Your task to perform on an android device: Google the capital of Panama Image 0: 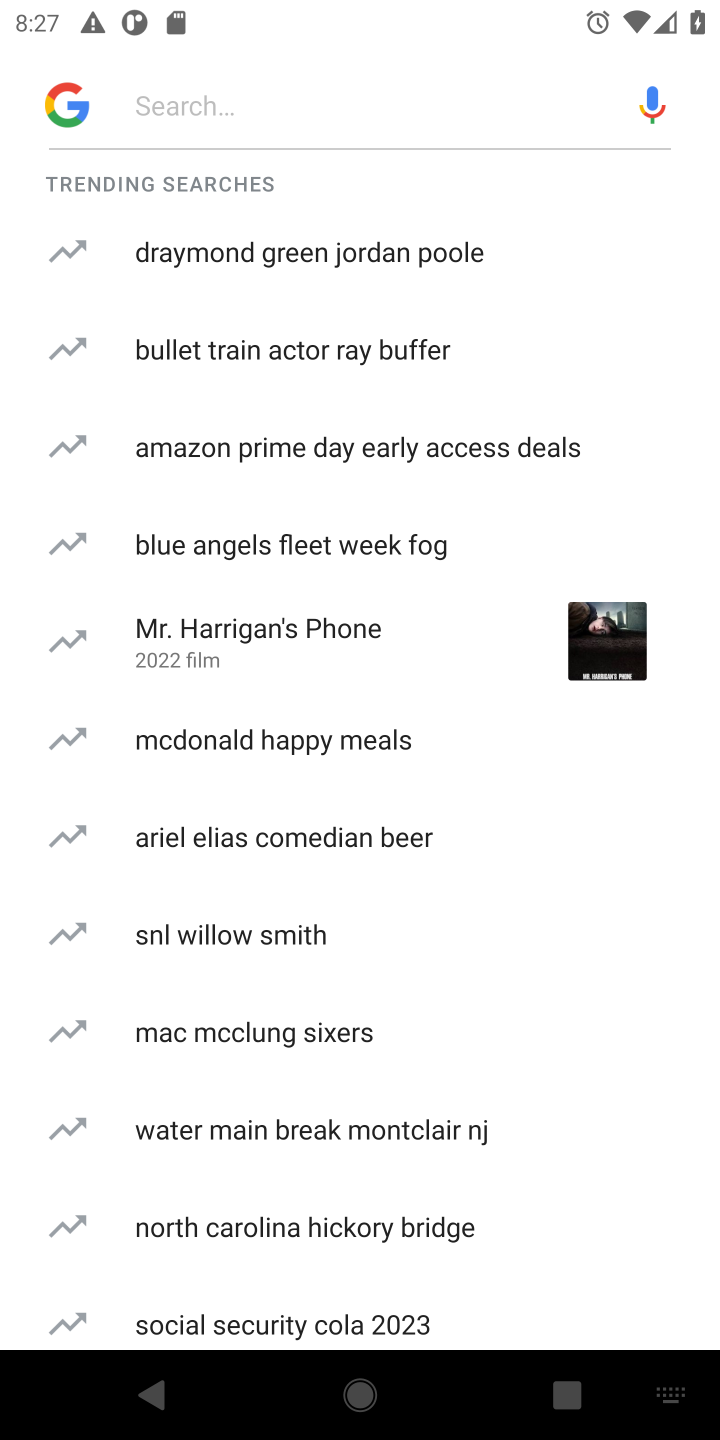
Step 0: drag from (112, 1436) to (246, 1435)
Your task to perform on an android device: Google the capital of Panama Image 1: 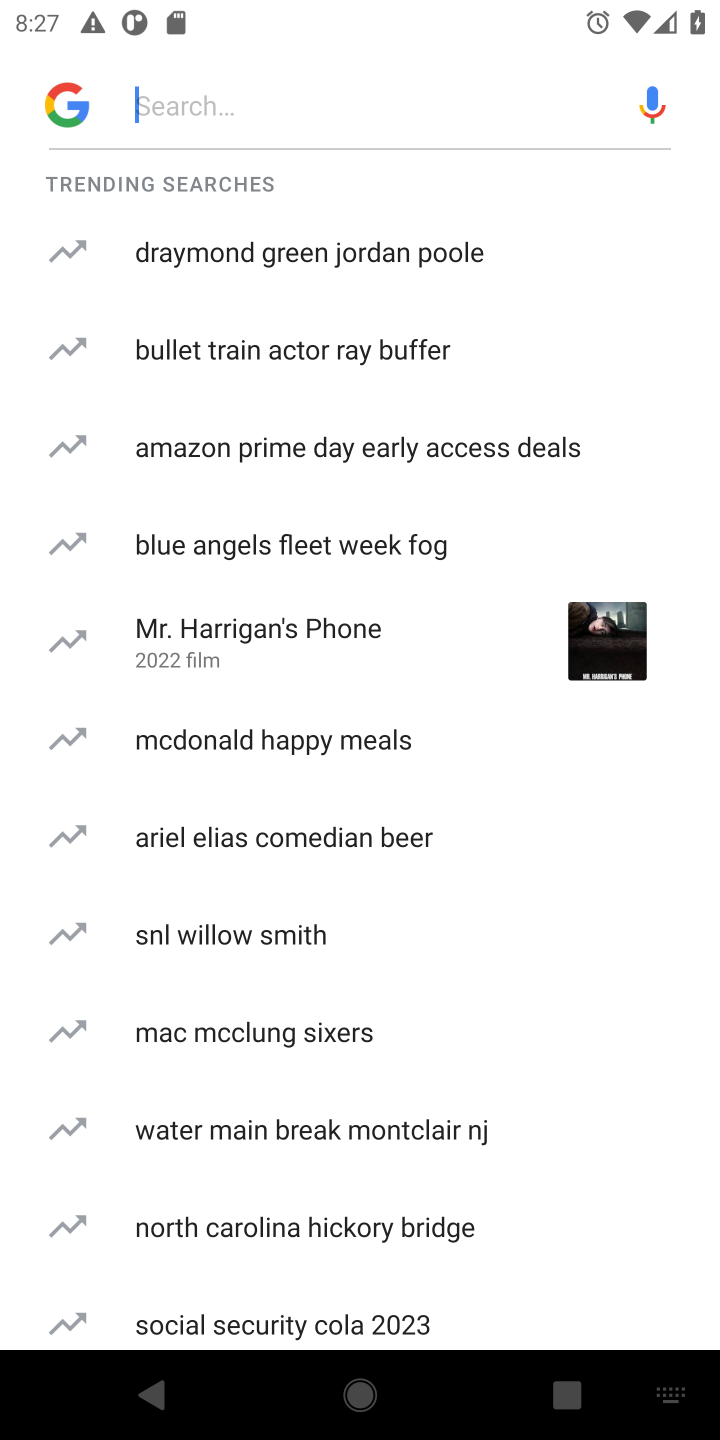
Step 1: click (231, 103)
Your task to perform on an android device: Google the capital of Panama Image 2: 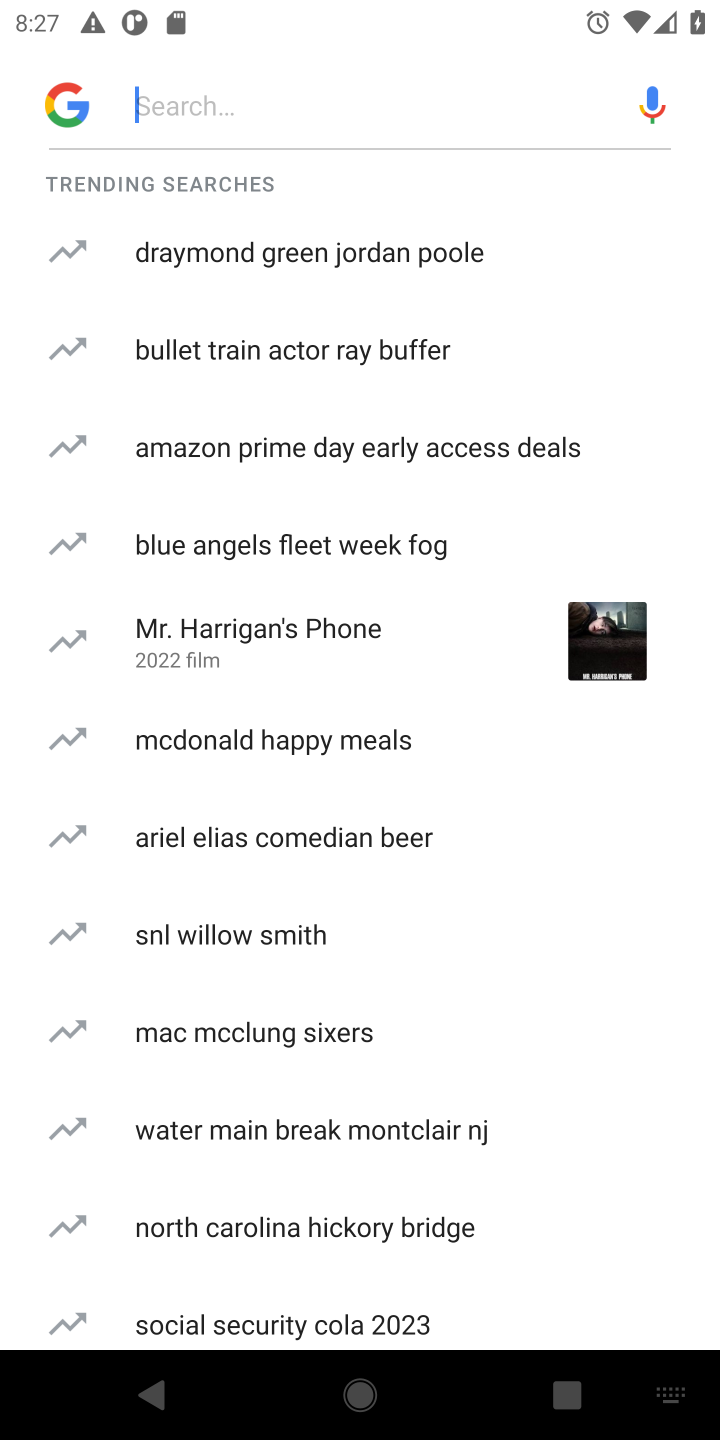
Step 2: type "Google the capital of Panama "
Your task to perform on an android device: Google the capital of Panama Image 3: 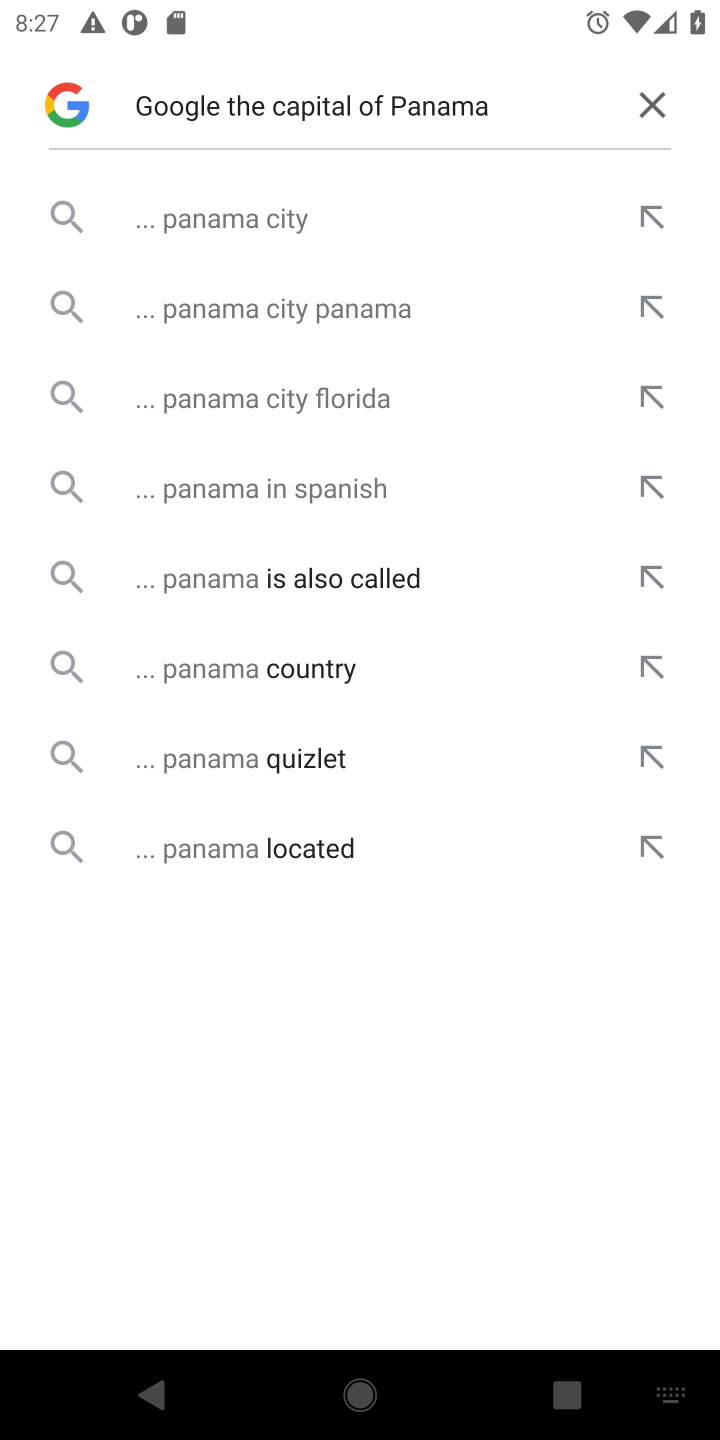
Step 3: click (260, 214)
Your task to perform on an android device: Google the capital of Panama Image 4: 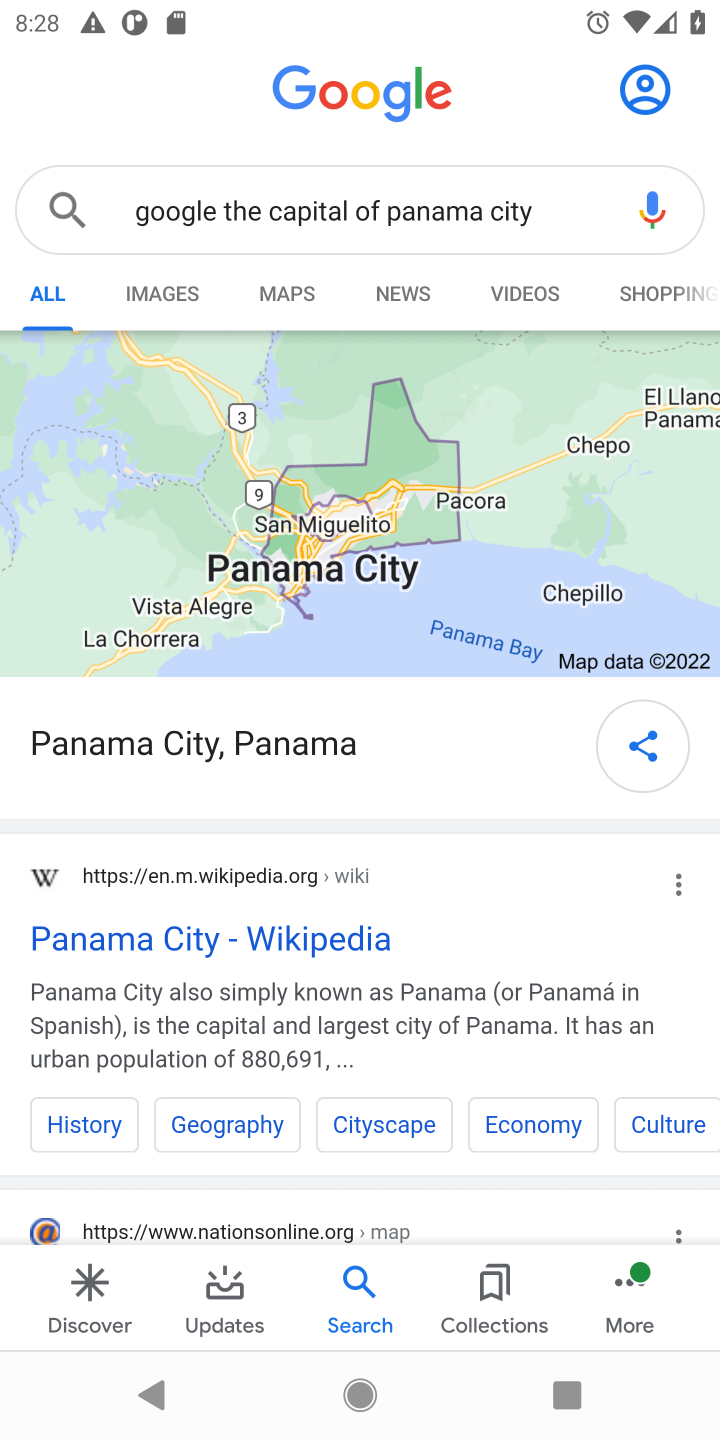
Step 4: drag from (375, 988) to (368, 847)
Your task to perform on an android device: Google the capital of Panama Image 5: 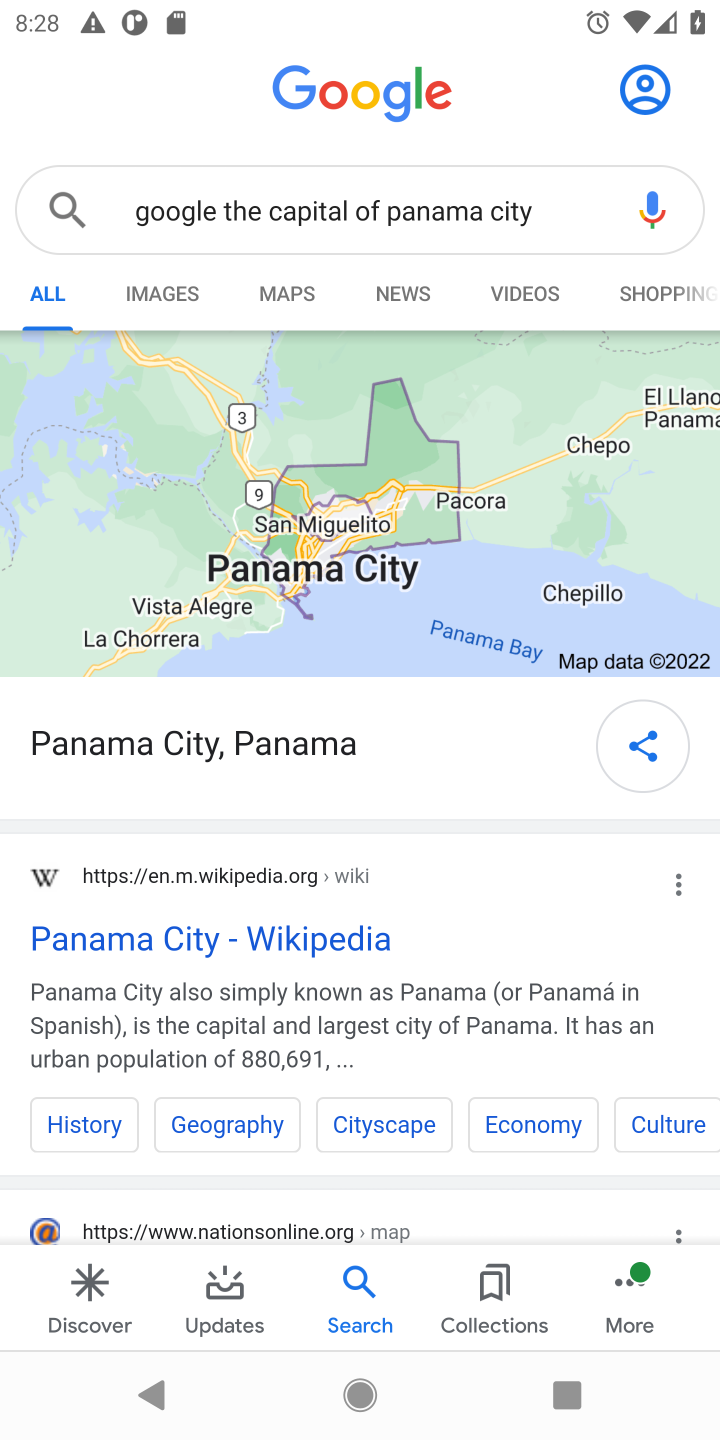
Step 5: drag from (477, 978) to (449, 435)
Your task to perform on an android device: Google the capital of Panama Image 6: 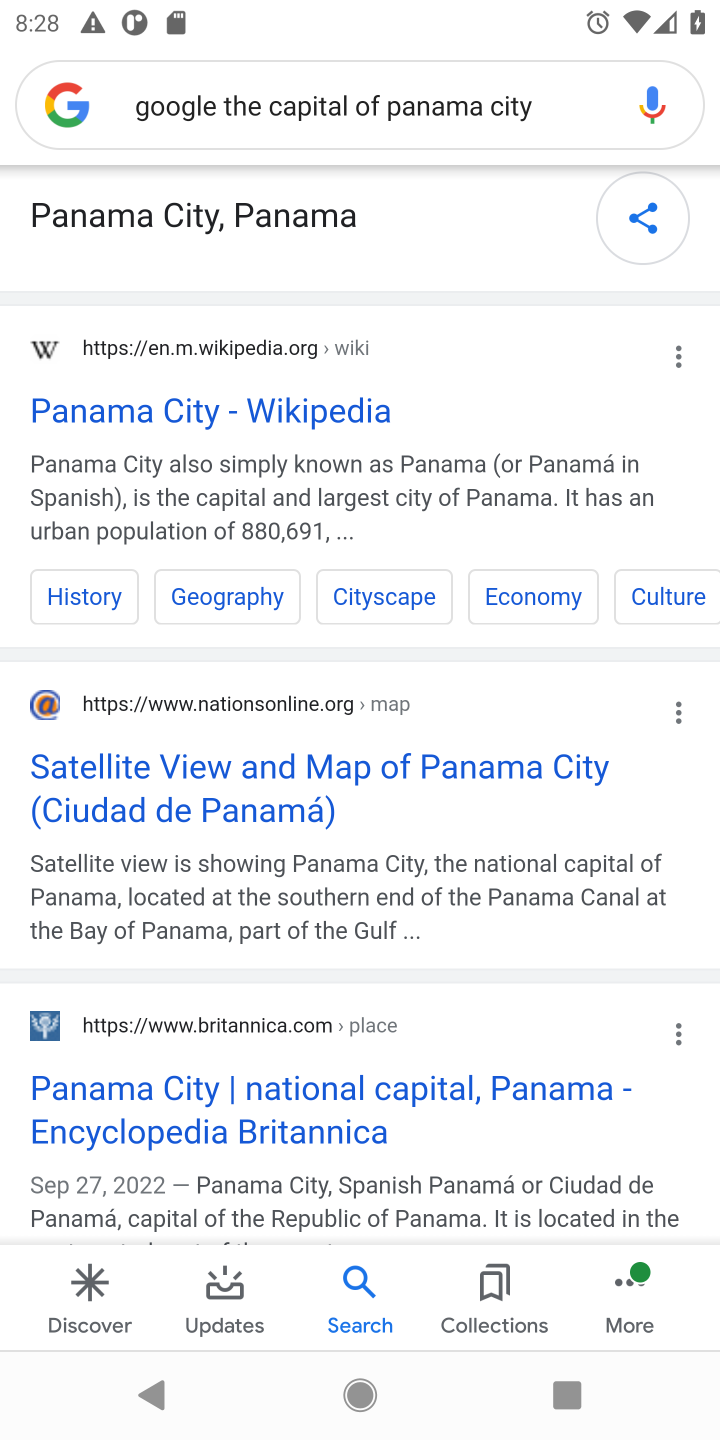
Step 6: drag from (485, 328) to (484, 1136)
Your task to perform on an android device: Google the capital of Panama Image 7: 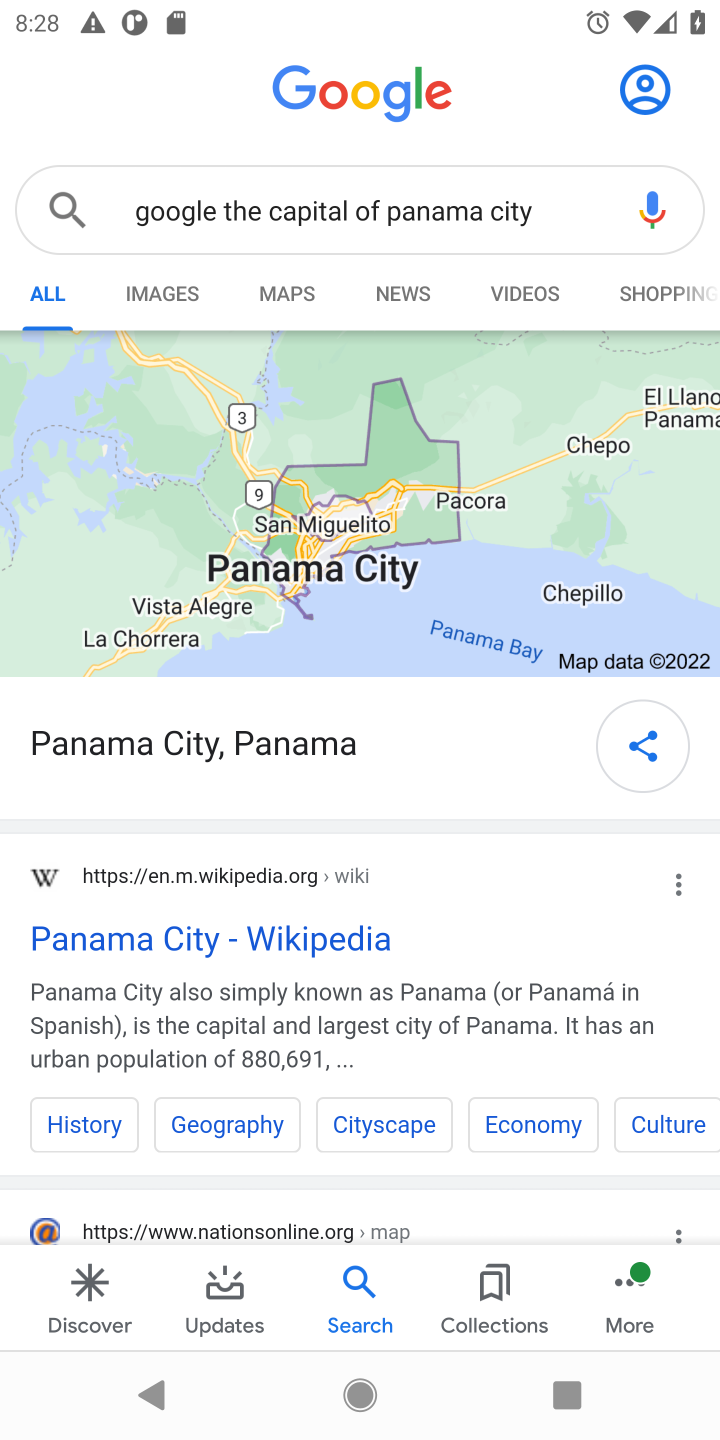
Step 7: drag from (341, 1045) to (463, 453)
Your task to perform on an android device: Google the capital of Panama Image 8: 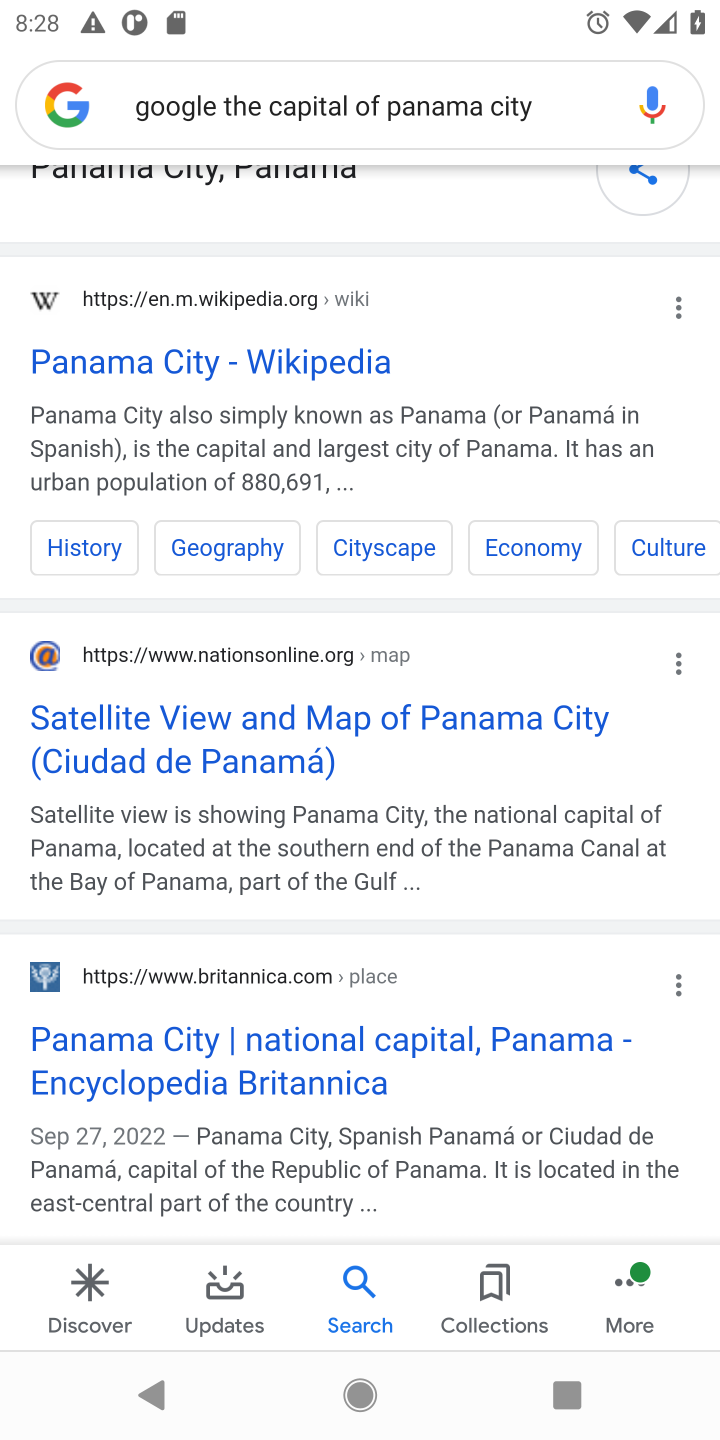
Step 8: drag from (302, 1157) to (322, 692)
Your task to perform on an android device: Google the capital of Panama Image 9: 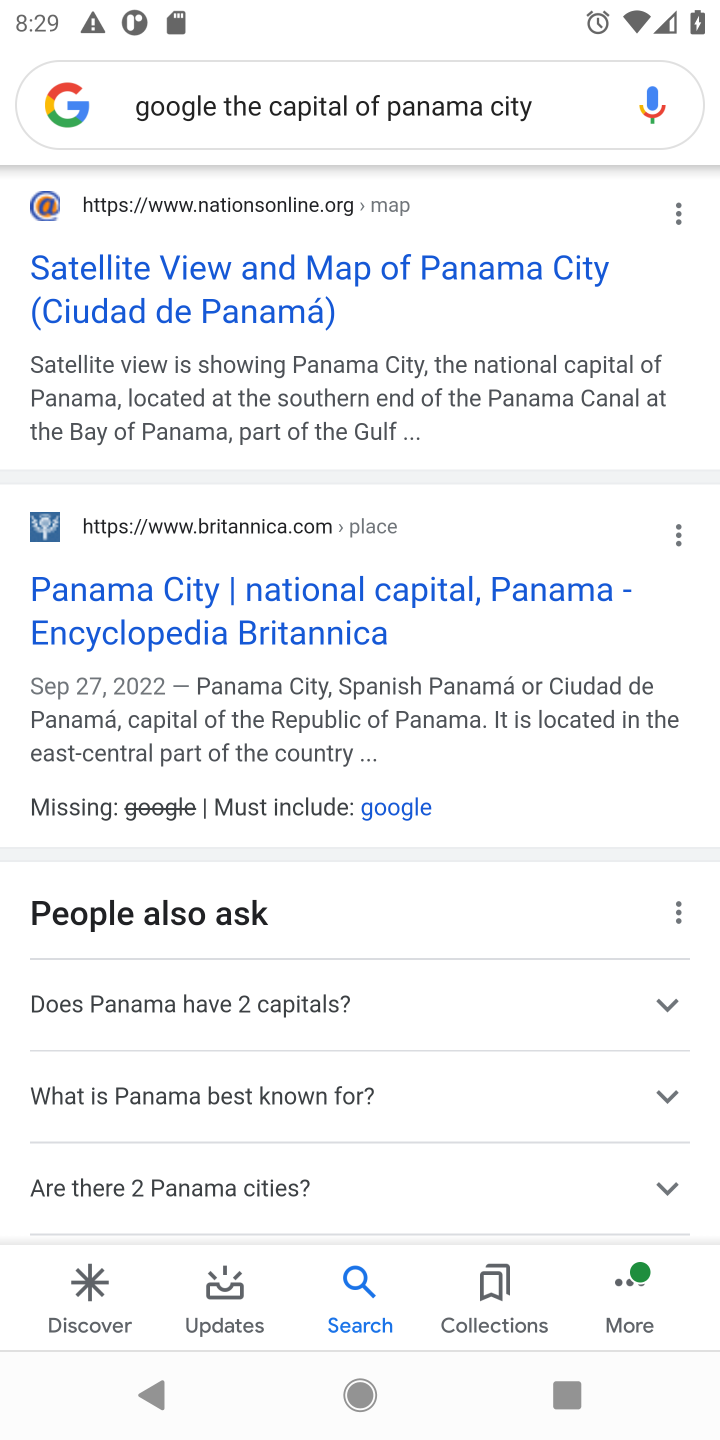
Step 9: drag from (384, 943) to (424, 446)
Your task to perform on an android device: Google the capital of Panama Image 10: 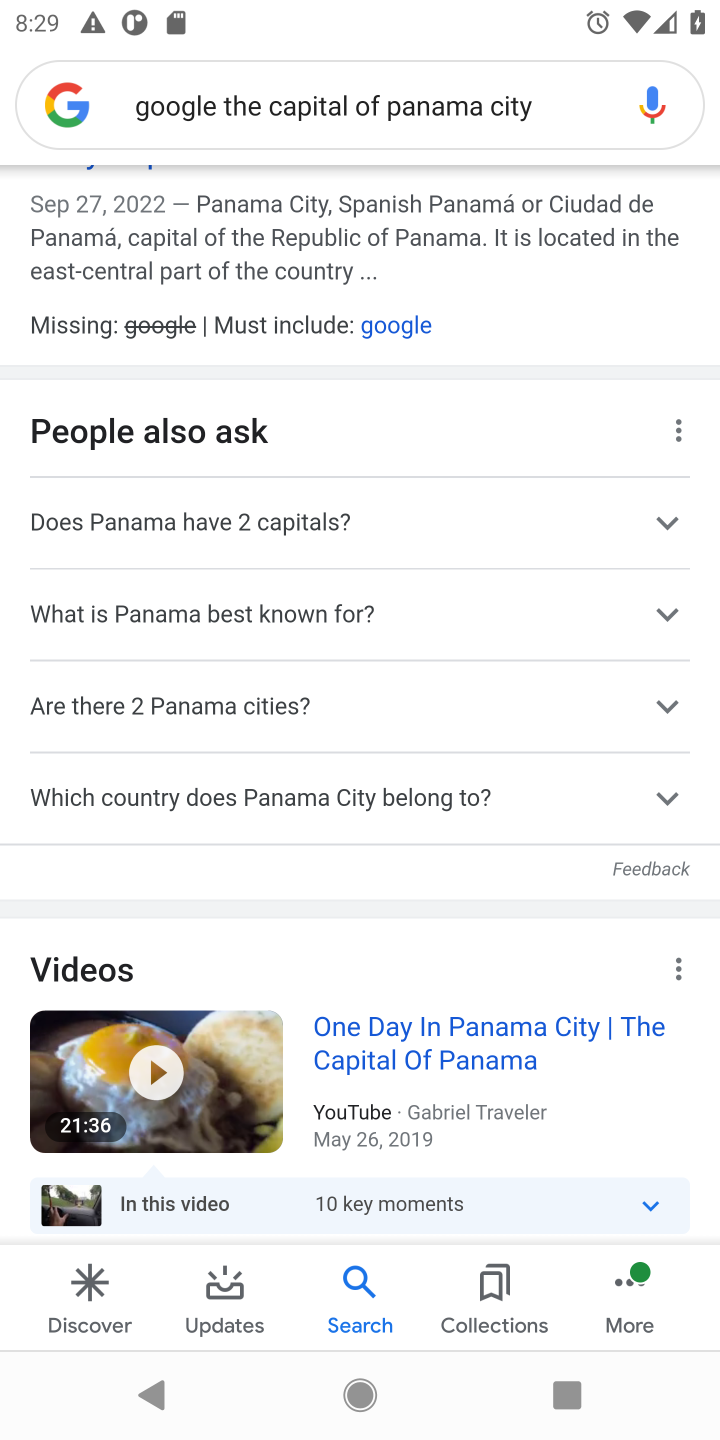
Step 10: click (256, 532)
Your task to perform on an android device: Google the capital of Panama Image 11: 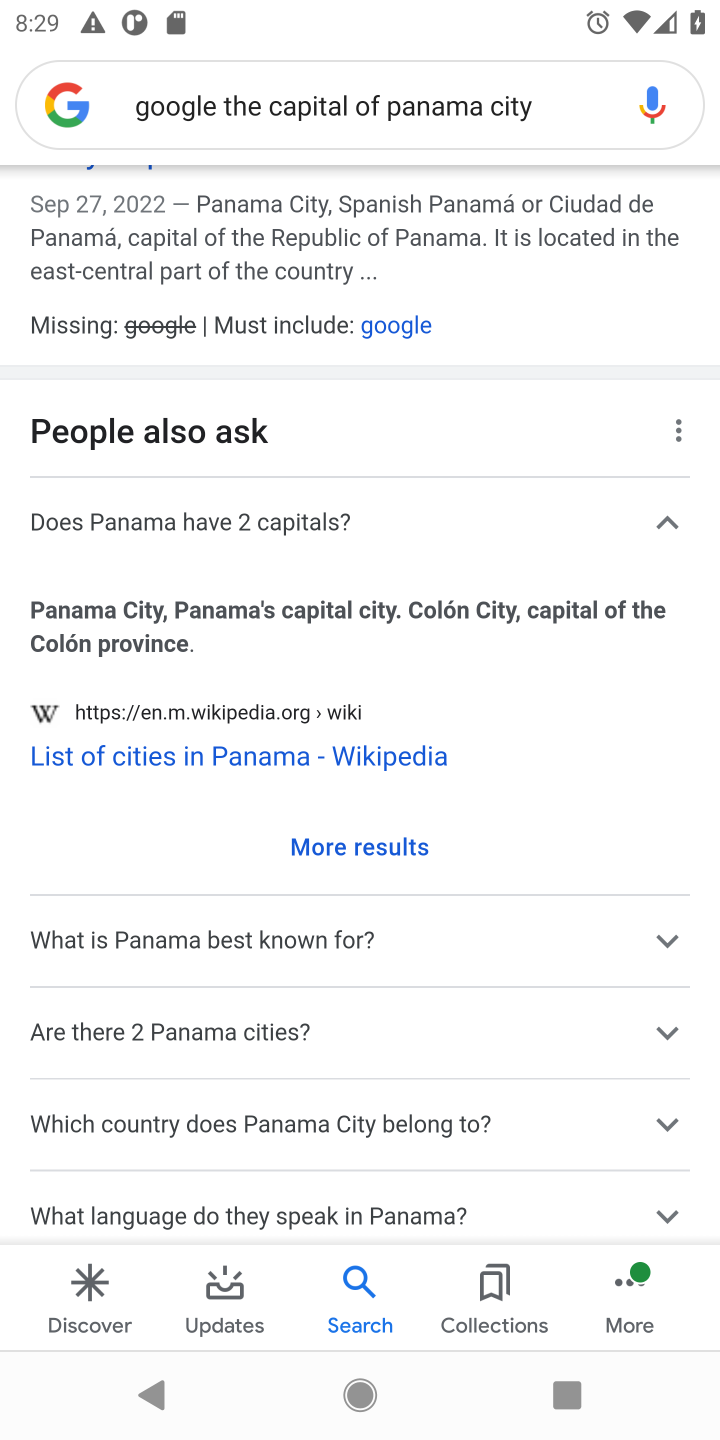
Step 11: task complete